Your task to perform on an android device: change notification settings in the gmail app Image 0: 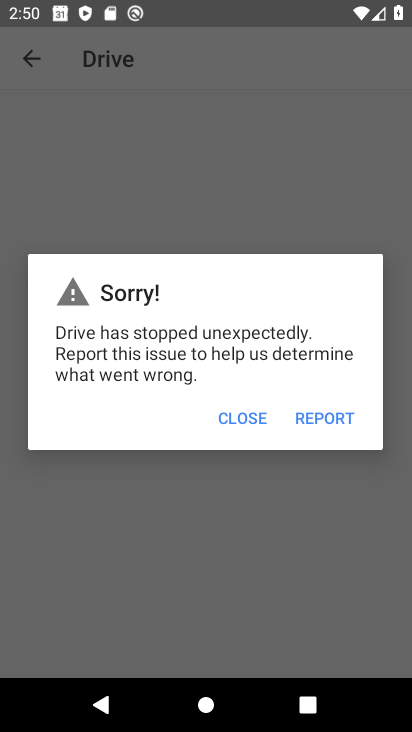
Step 0: press home button
Your task to perform on an android device: change notification settings in the gmail app Image 1: 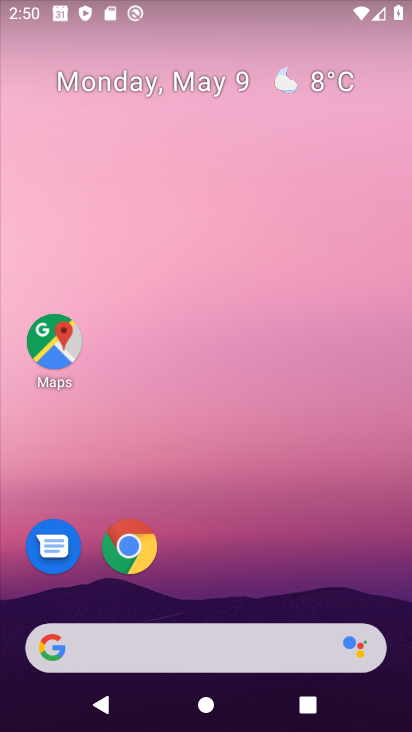
Step 1: drag from (227, 533) to (240, 21)
Your task to perform on an android device: change notification settings in the gmail app Image 2: 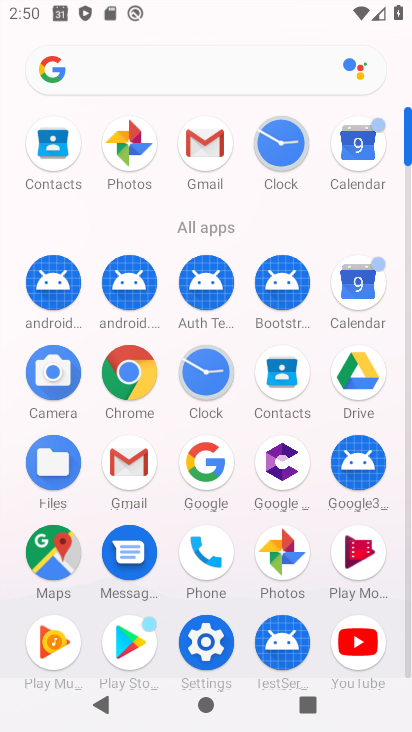
Step 2: click (210, 141)
Your task to perform on an android device: change notification settings in the gmail app Image 3: 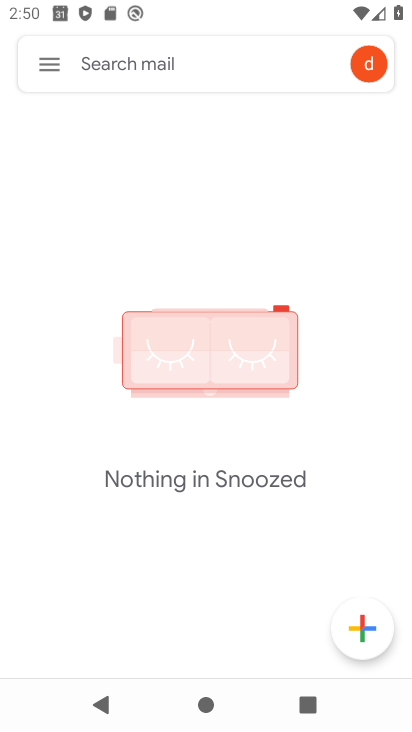
Step 3: click (45, 60)
Your task to perform on an android device: change notification settings in the gmail app Image 4: 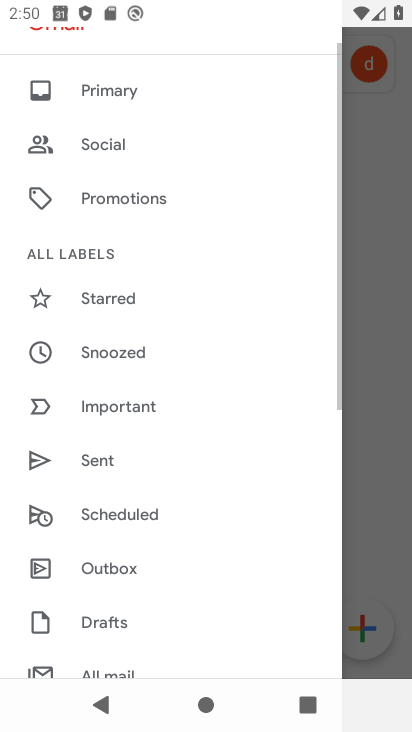
Step 4: drag from (159, 588) to (225, 150)
Your task to perform on an android device: change notification settings in the gmail app Image 5: 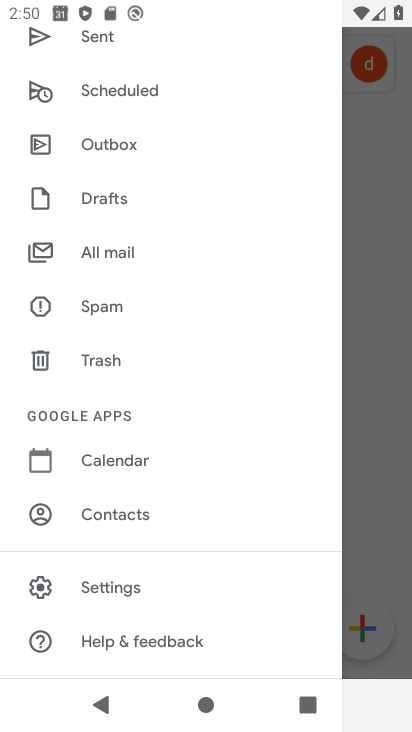
Step 5: click (142, 581)
Your task to perform on an android device: change notification settings in the gmail app Image 6: 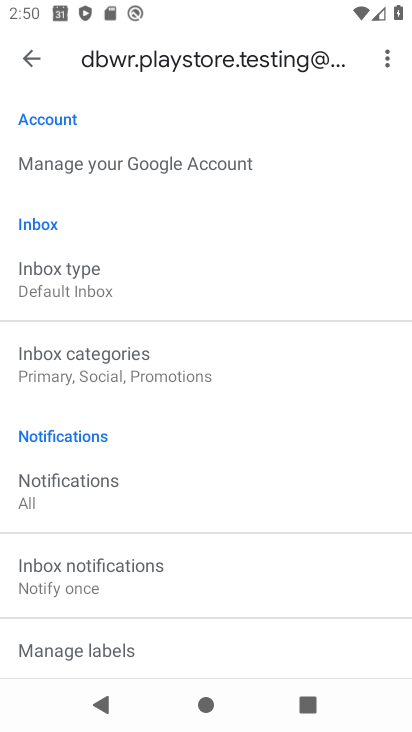
Step 6: drag from (228, 563) to (286, 258)
Your task to perform on an android device: change notification settings in the gmail app Image 7: 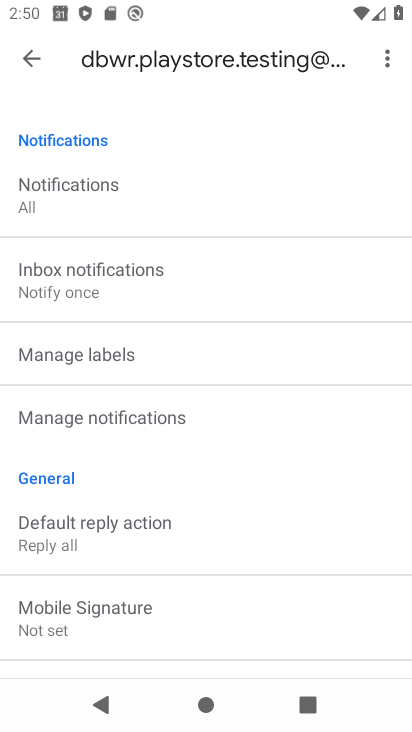
Step 7: click (216, 416)
Your task to perform on an android device: change notification settings in the gmail app Image 8: 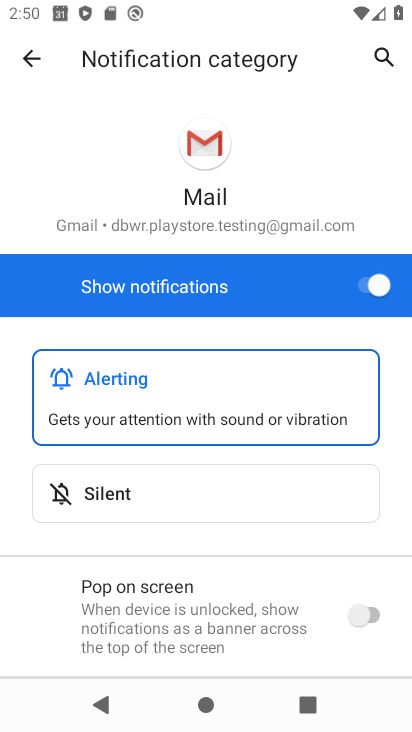
Step 8: click (366, 279)
Your task to perform on an android device: change notification settings in the gmail app Image 9: 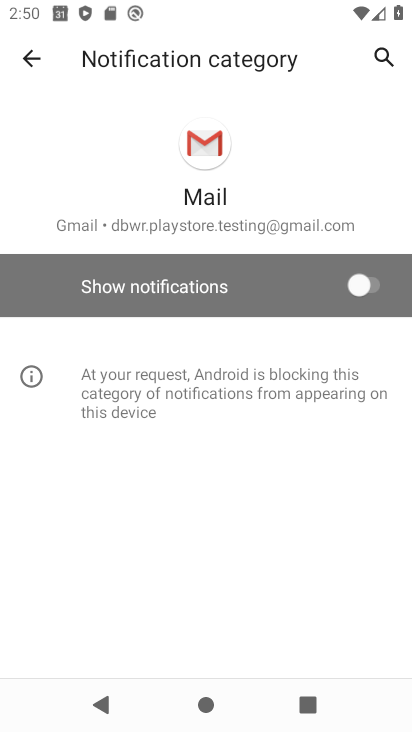
Step 9: task complete